Your task to perform on an android device: toggle airplane mode Image 0: 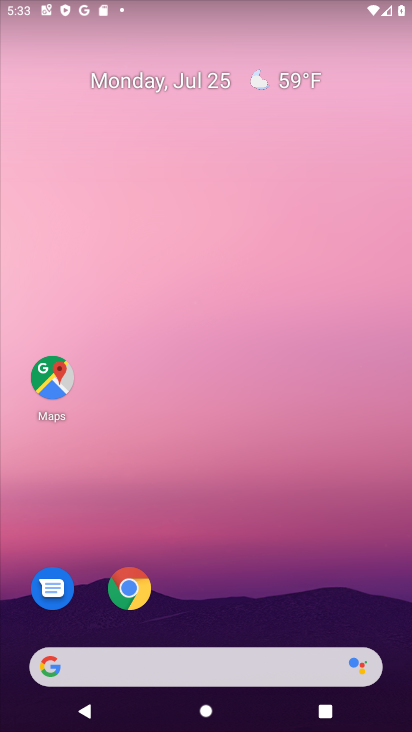
Step 0: drag from (320, 2) to (294, 165)
Your task to perform on an android device: toggle airplane mode Image 1: 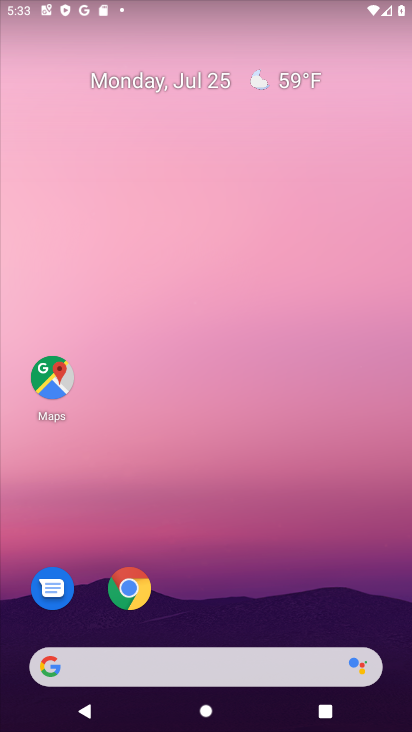
Step 1: task complete